Your task to perform on an android device: Open Wikipedia Image 0: 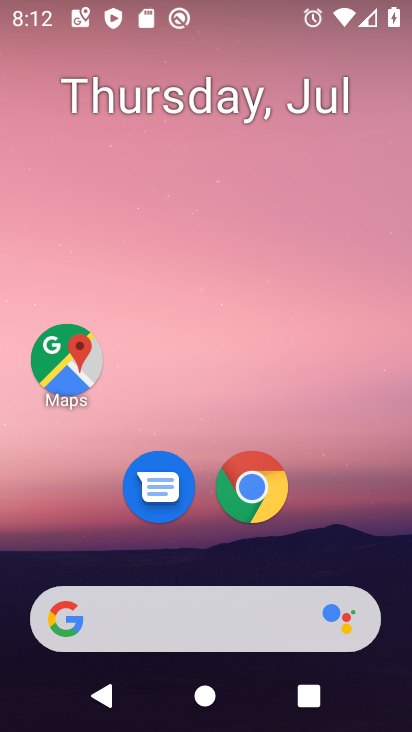
Step 0: drag from (199, 689) to (217, 253)
Your task to perform on an android device: Open Wikipedia Image 1: 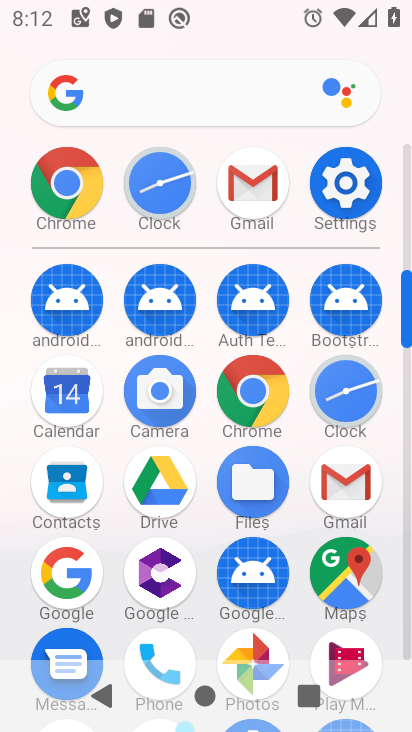
Step 1: click (257, 397)
Your task to perform on an android device: Open Wikipedia Image 2: 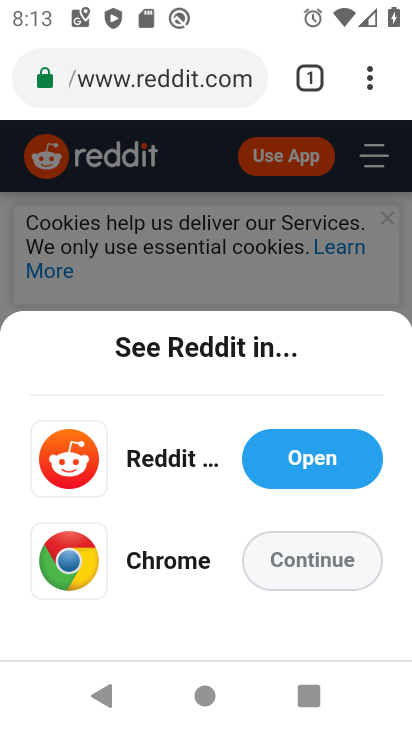
Step 2: click (204, 95)
Your task to perform on an android device: Open Wikipedia Image 3: 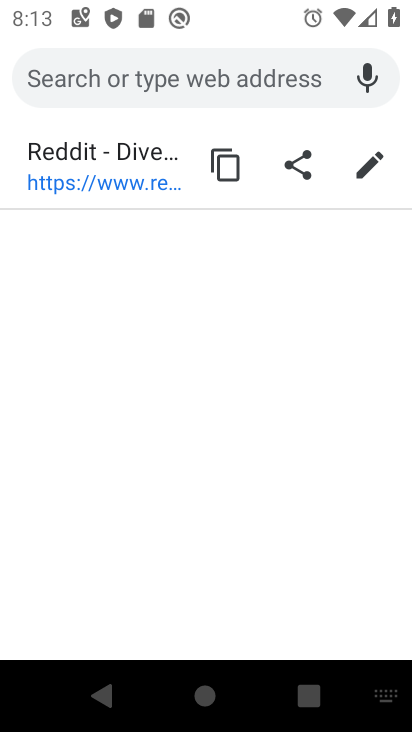
Step 3: type "wikipedia"
Your task to perform on an android device: Open Wikipedia Image 4: 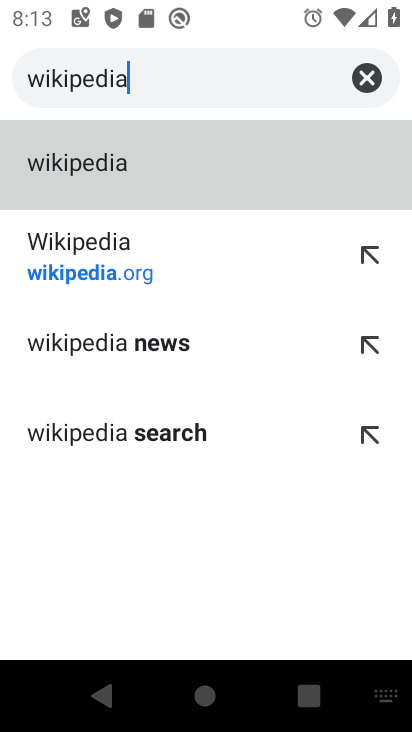
Step 4: click (204, 281)
Your task to perform on an android device: Open Wikipedia Image 5: 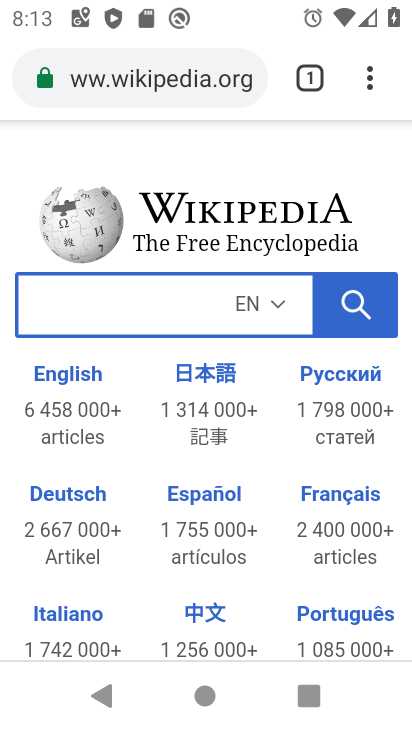
Step 5: task complete